Your task to perform on an android device: change the clock display to show seconds Image 0: 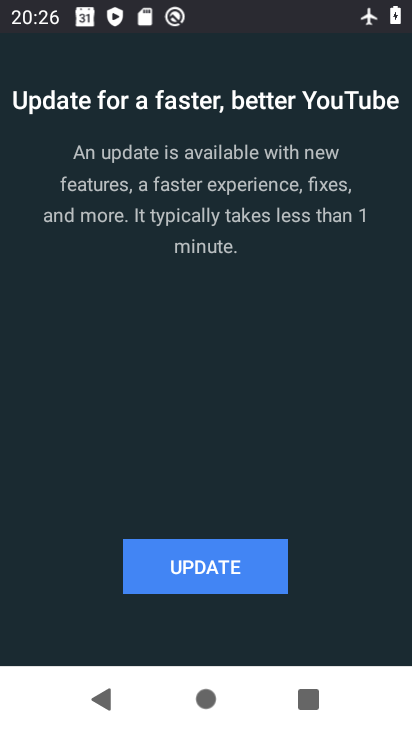
Step 0: press home button
Your task to perform on an android device: change the clock display to show seconds Image 1: 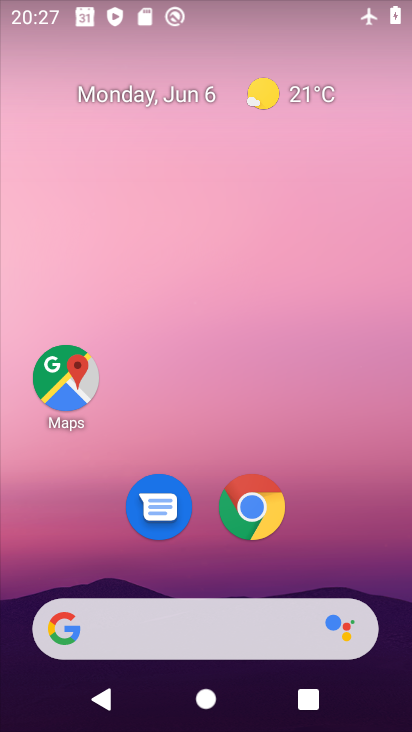
Step 1: drag from (155, 578) to (372, 44)
Your task to perform on an android device: change the clock display to show seconds Image 2: 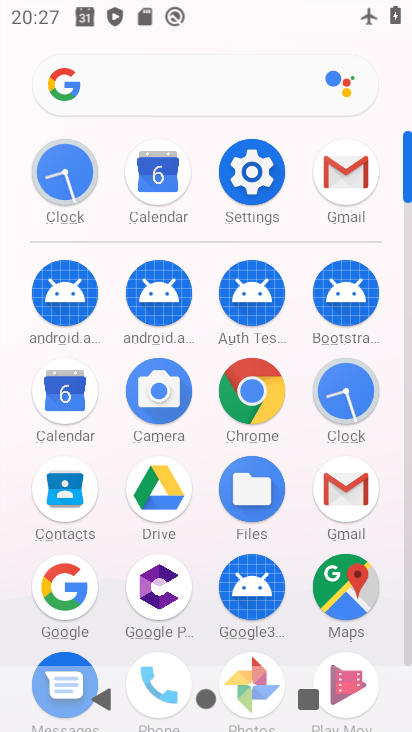
Step 2: click (245, 178)
Your task to perform on an android device: change the clock display to show seconds Image 3: 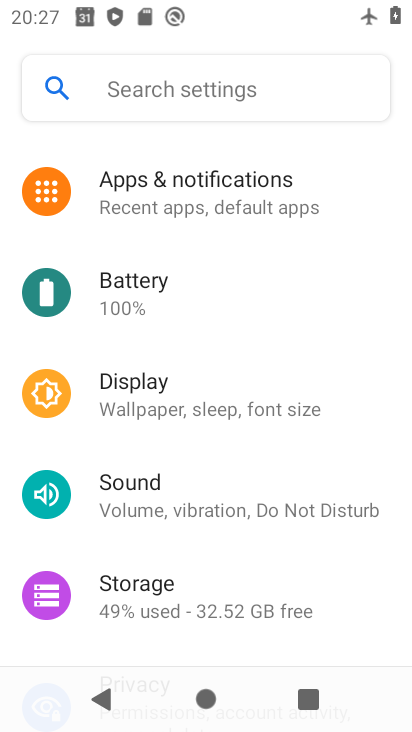
Step 3: press back button
Your task to perform on an android device: change the clock display to show seconds Image 4: 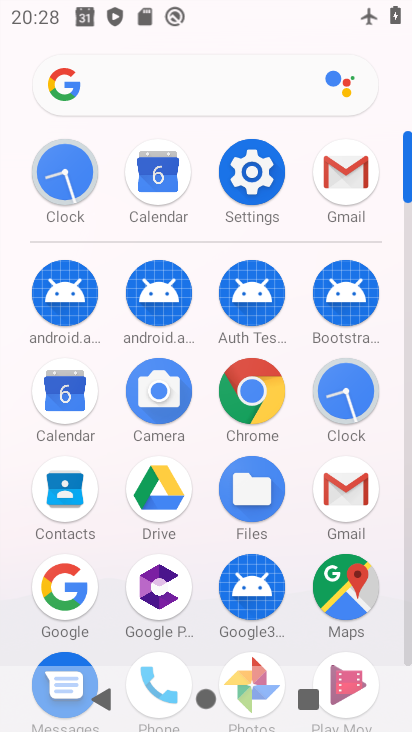
Step 4: click (354, 392)
Your task to perform on an android device: change the clock display to show seconds Image 5: 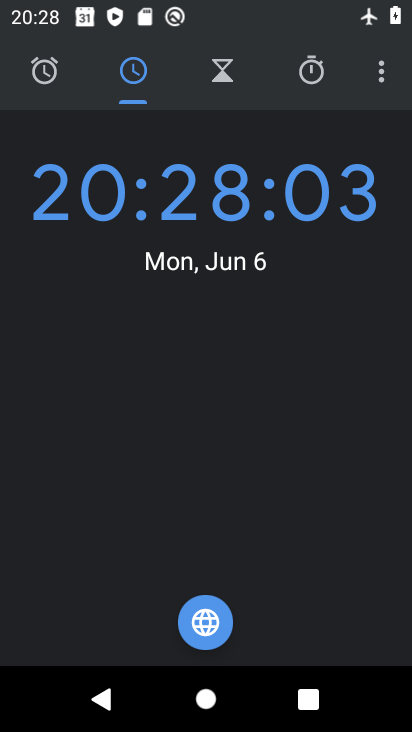
Step 5: click (377, 61)
Your task to perform on an android device: change the clock display to show seconds Image 6: 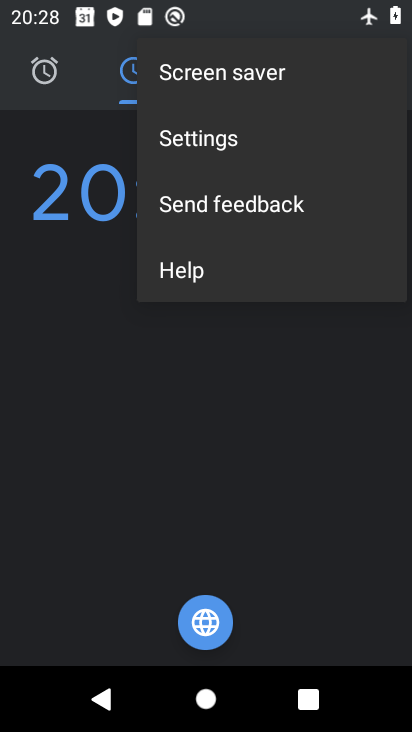
Step 6: click (219, 143)
Your task to perform on an android device: change the clock display to show seconds Image 7: 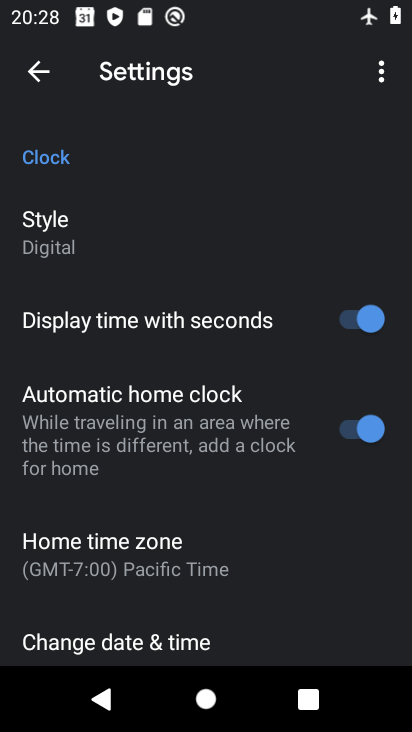
Step 7: task complete